Your task to perform on an android device: Go to ESPN.com Image 0: 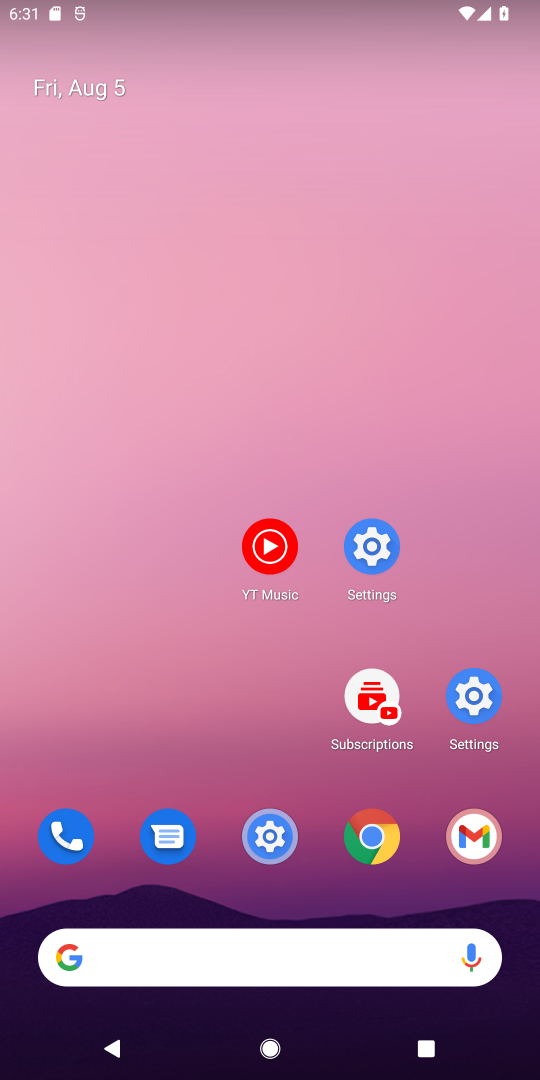
Step 0: drag from (350, 955) to (255, 431)
Your task to perform on an android device: Go to ESPN.com Image 1: 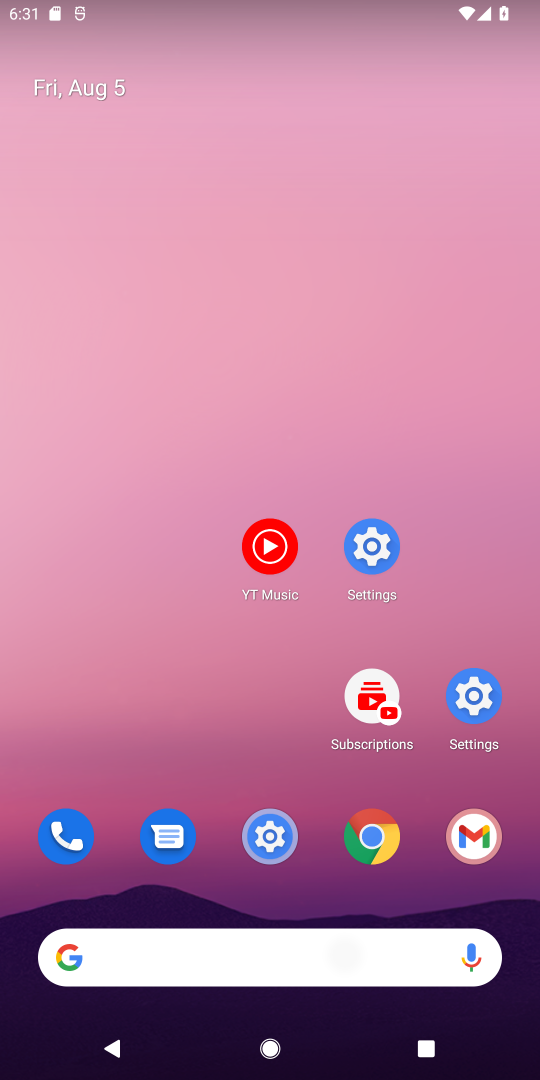
Step 1: drag from (299, 827) to (299, 245)
Your task to perform on an android device: Go to ESPN.com Image 2: 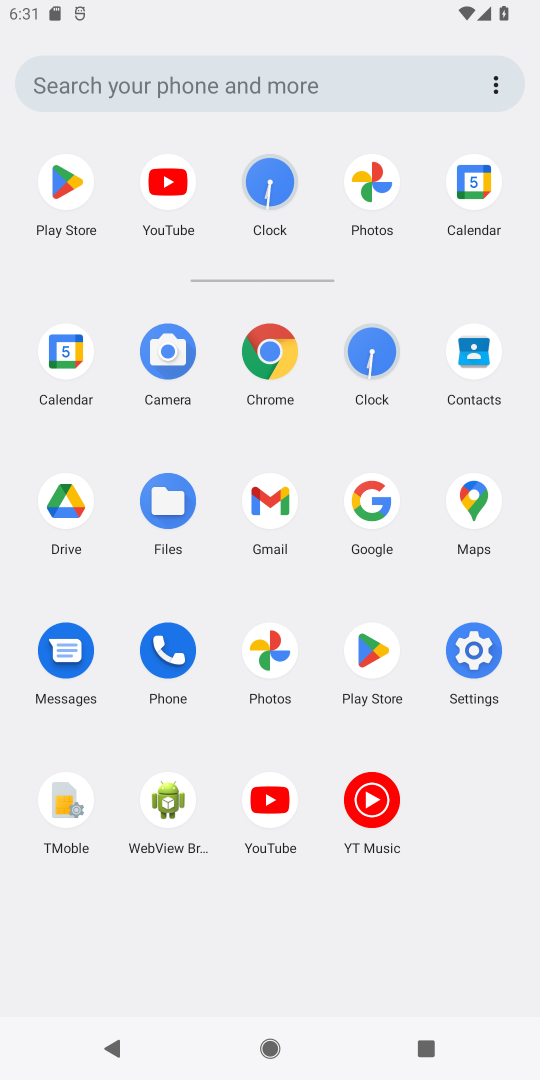
Step 2: drag from (344, 838) to (280, 212)
Your task to perform on an android device: Go to ESPN.com Image 3: 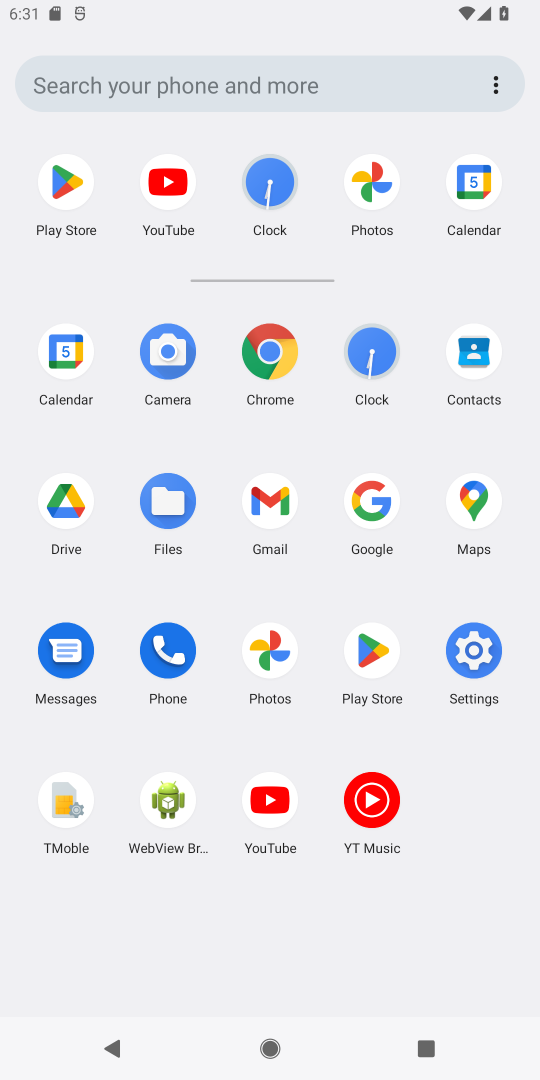
Step 3: drag from (311, 317) to (279, 420)
Your task to perform on an android device: Go to ESPN.com Image 4: 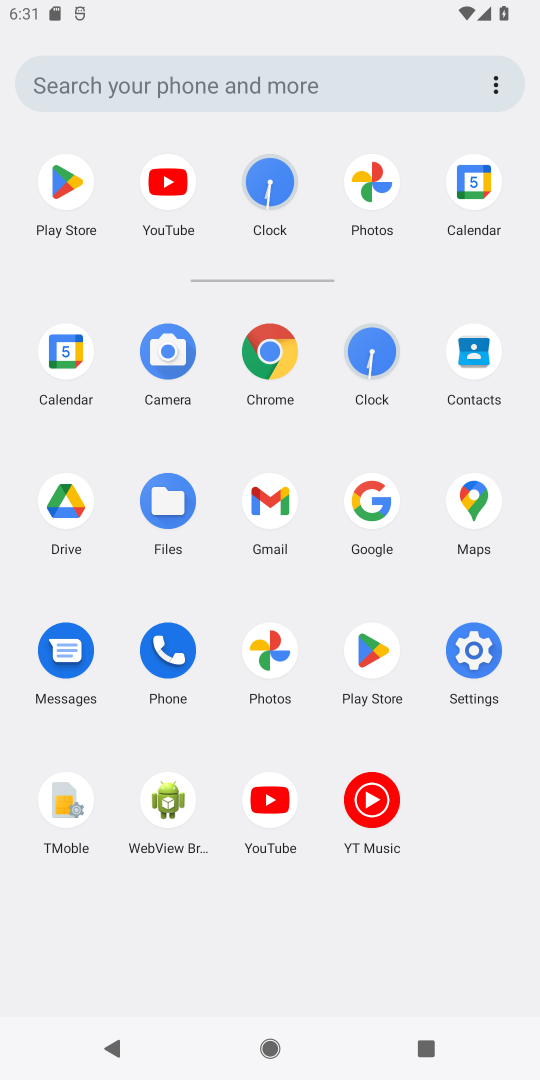
Step 4: click (273, 338)
Your task to perform on an android device: Go to ESPN.com Image 5: 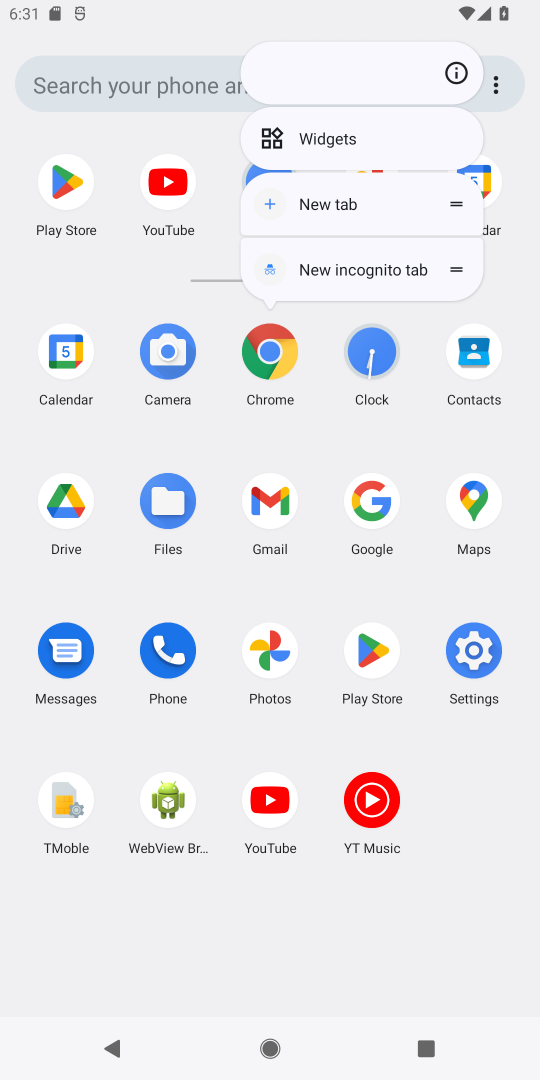
Step 5: click (273, 348)
Your task to perform on an android device: Go to ESPN.com Image 6: 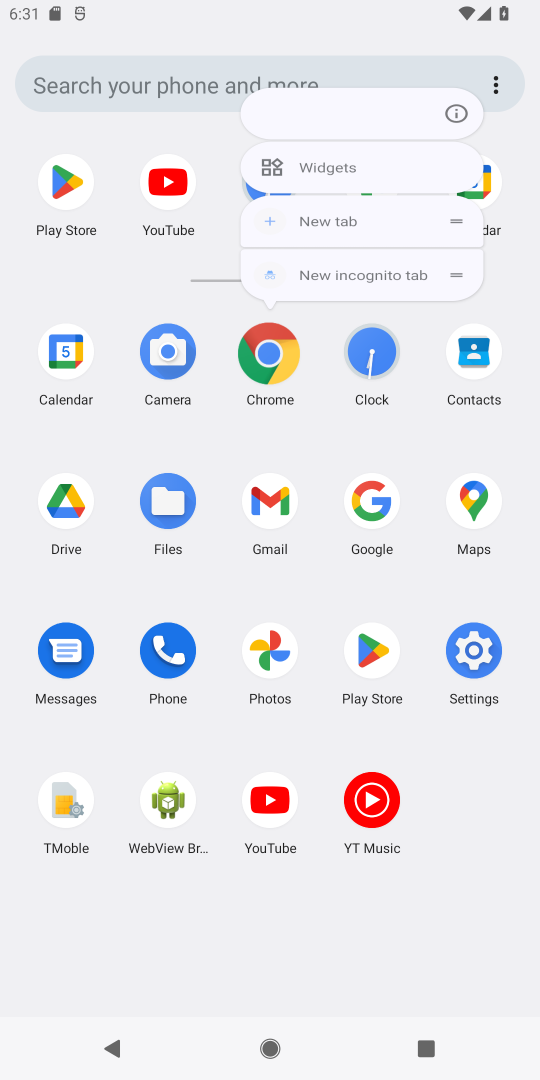
Step 6: click (272, 350)
Your task to perform on an android device: Go to ESPN.com Image 7: 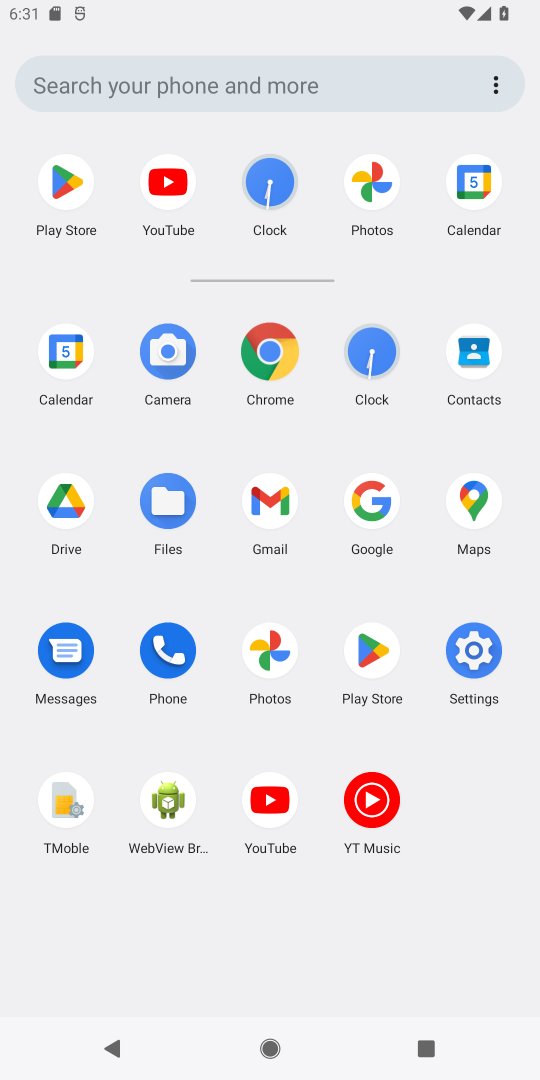
Step 7: click (272, 350)
Your task to perform on an android device: Go to ESPN.com Image 8: 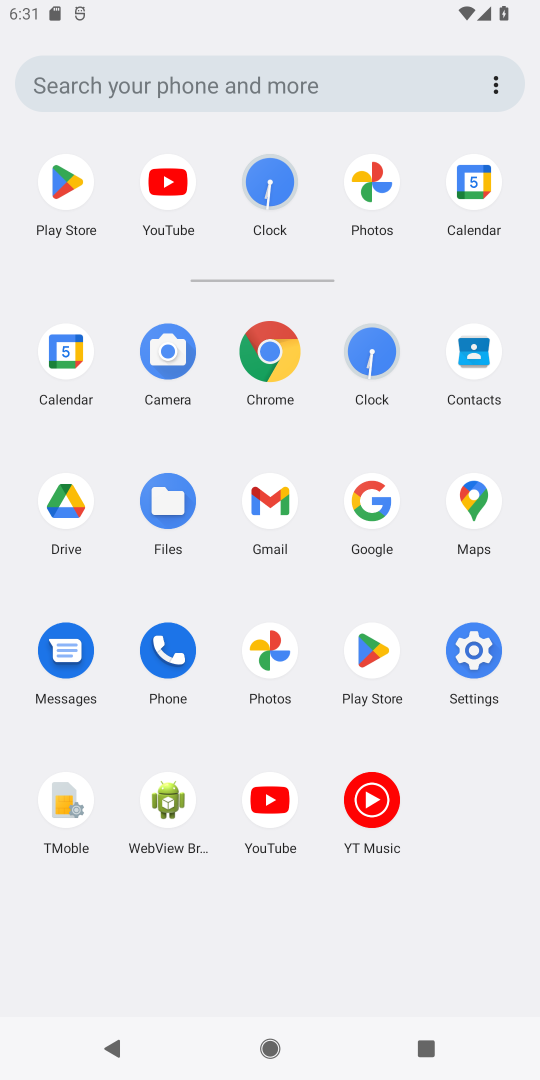
Step 8: click (272, 351)
Your task to perform on an android device: Go to ESPN.com Image 9: 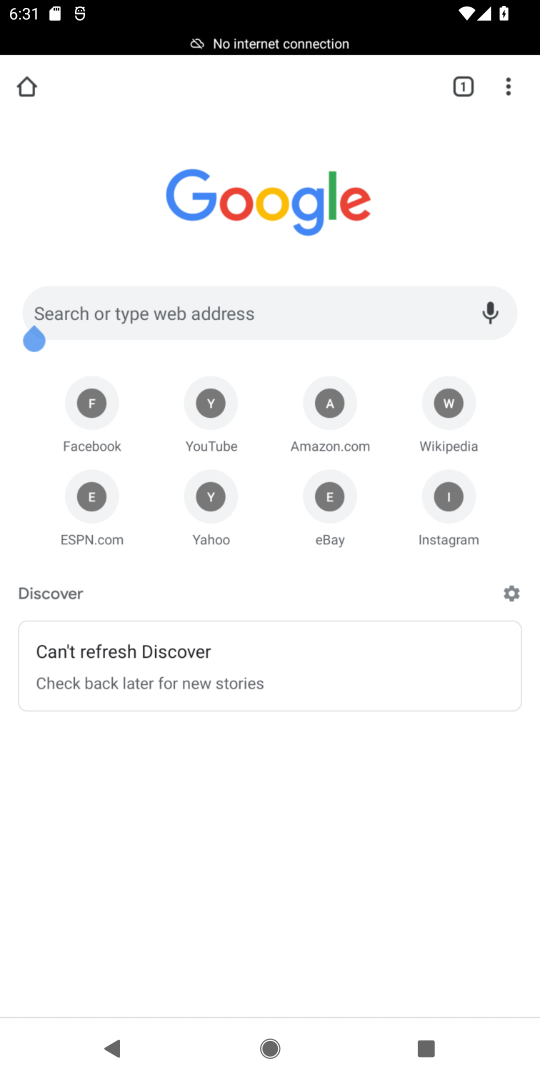
Step 9: click (272, 351)
Your task to perform on an android device: Go to ESPN.com Image 10: 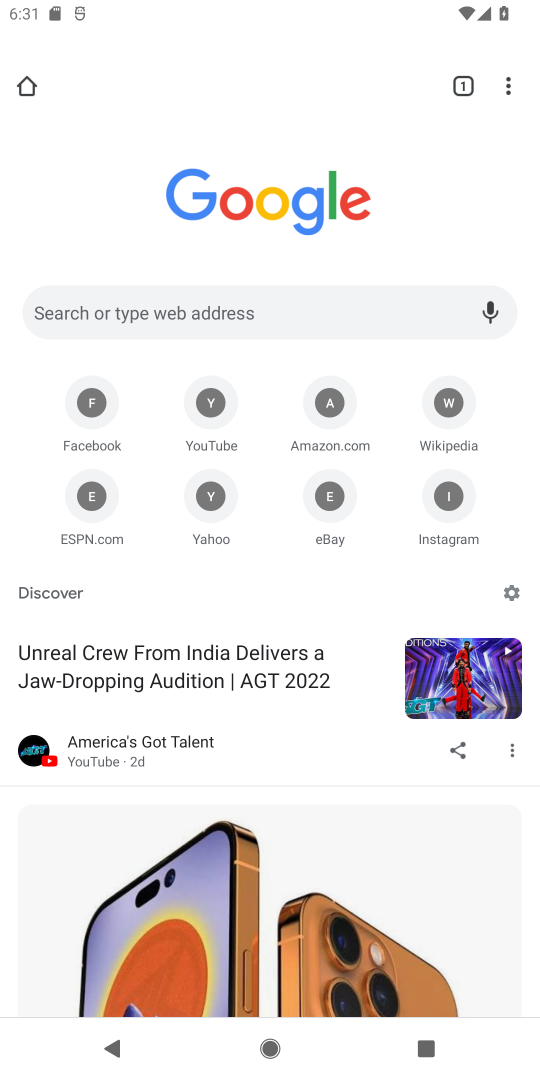
Step 10: click (103, 502)
Your task to perform on an android device: Go to ESPN.com Image 11: 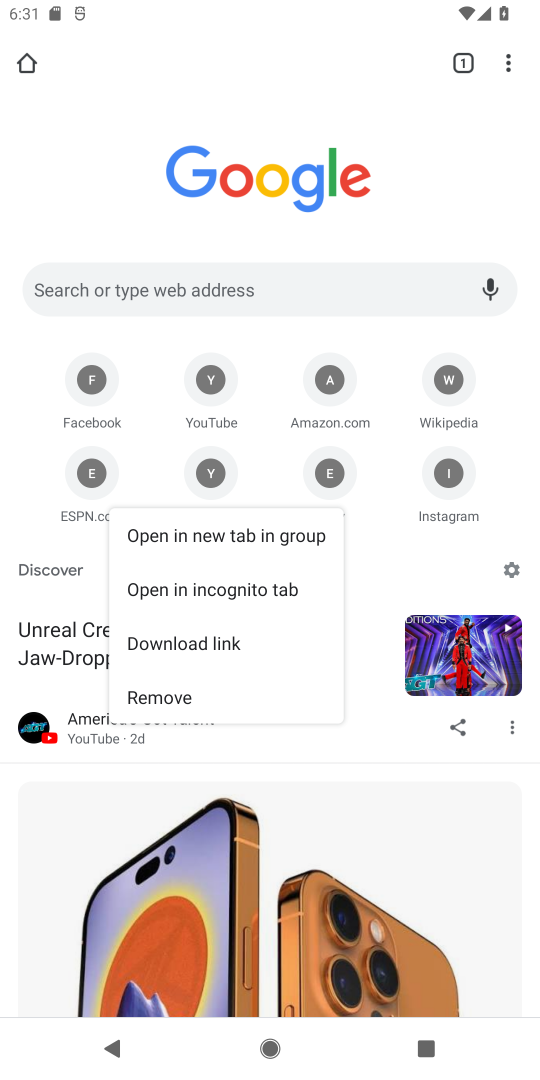
Step 11: click (106, 457)
Your task to perform on an android device: Go to ESPN.com Image 12: 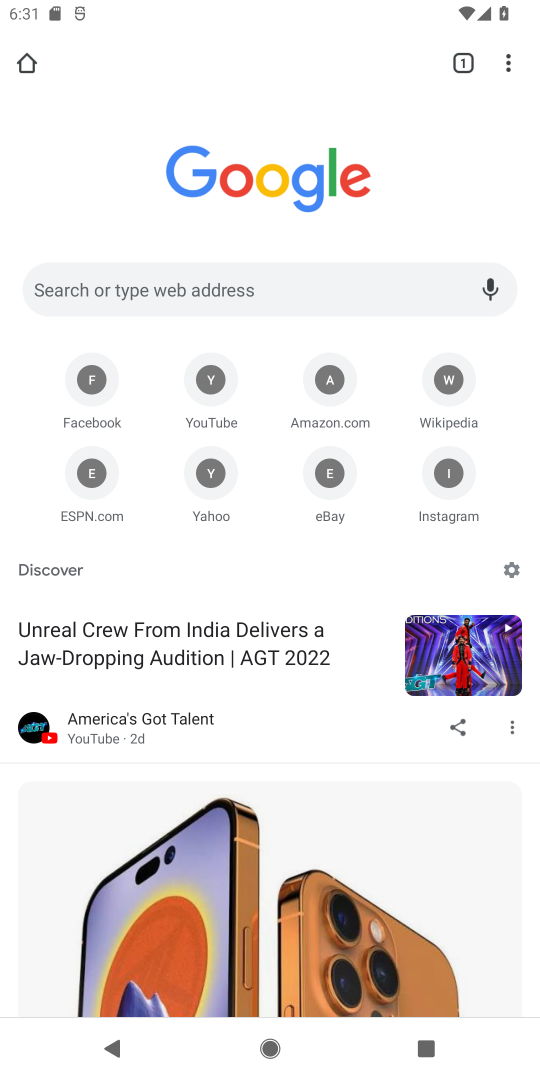
Step 12: click (105, 477)
Your task to perform on an android device: Go to ESPN.com Image 13: 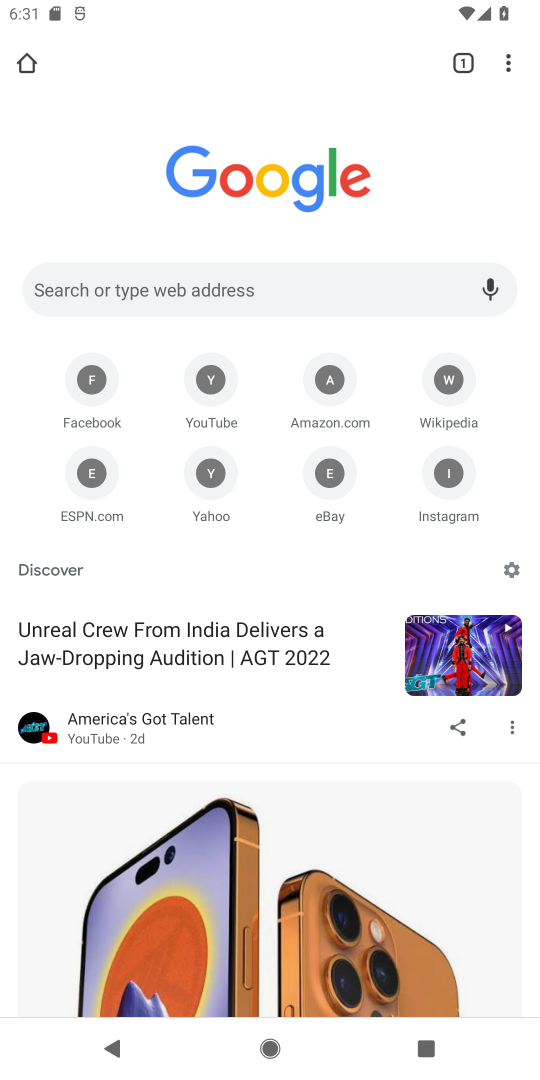
Step 13: click (105, 477)
Your task to perform on an android device: Go to ESPN.com Image 14: 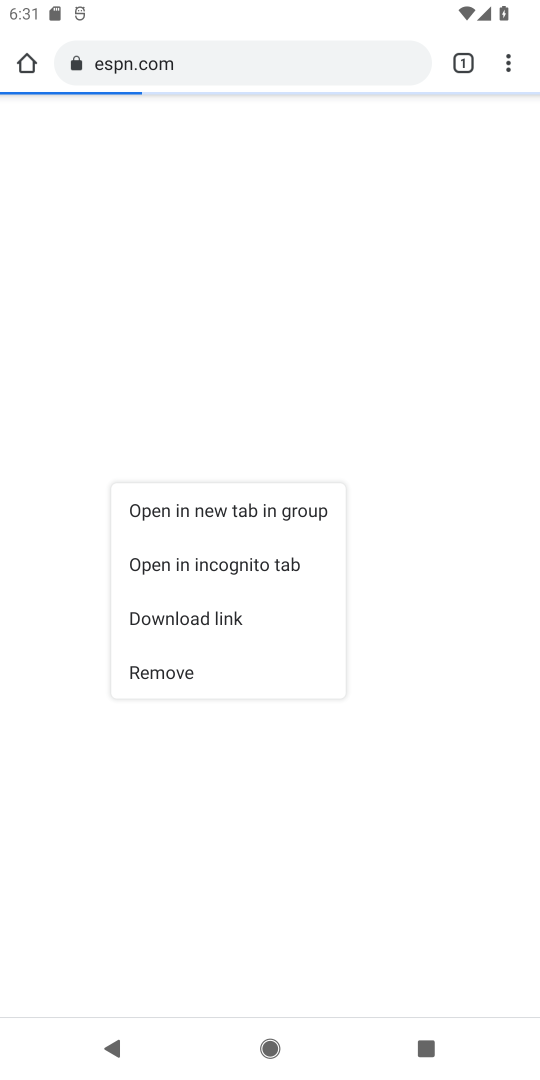
Step 14: click (93, 477)
Your task to perform on an android device: Go to ESPN.com Image 15: 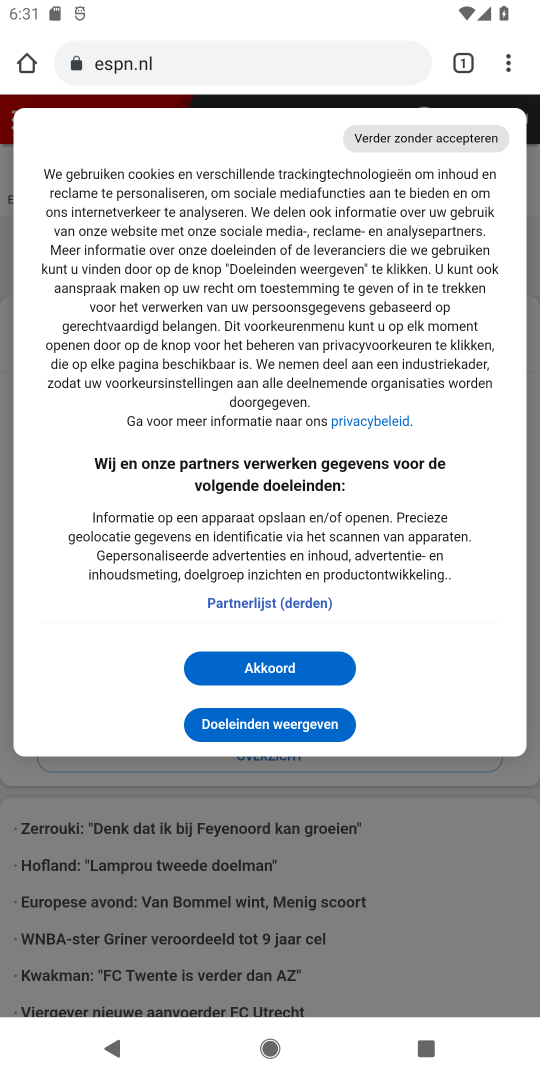
Step 15: task complete